Your task to perform on an android device: toggle location history Image 0: 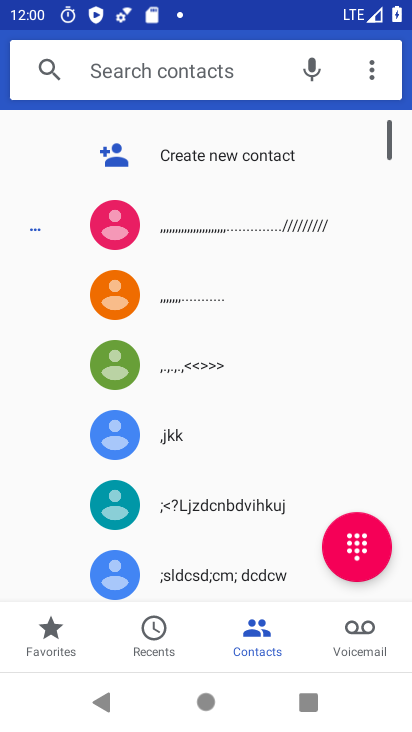
Step 0: press home button
Your task to perform on an android device: toggle location history Image 1: 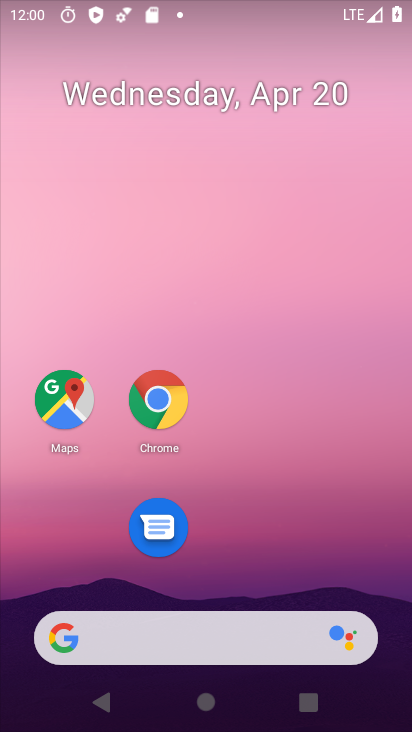
Step 1: drag from (291, 634) to (190, 217)
Your task to perform on an android device: toggle location history Image 2: 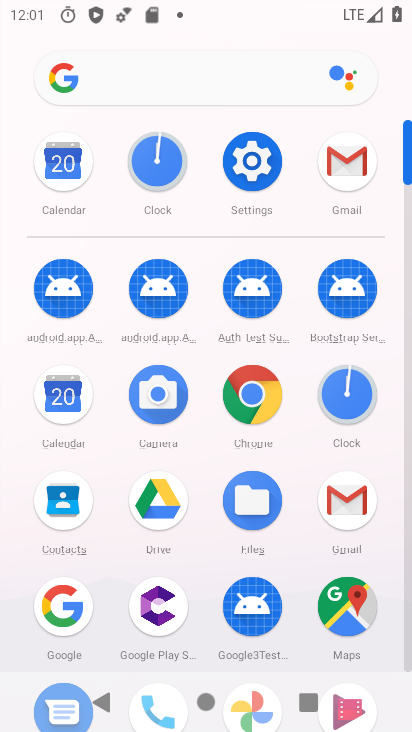
Step 2: click (243, 157)
Your task to perform on an android device: toggle location history Image 3: 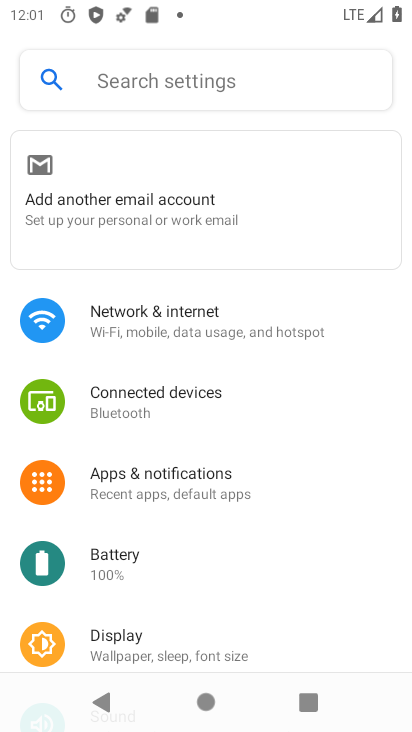
Step 3: drag from (224, 120) to (189, 94)
Your task to perform on an android device: toggle location history Image 4: 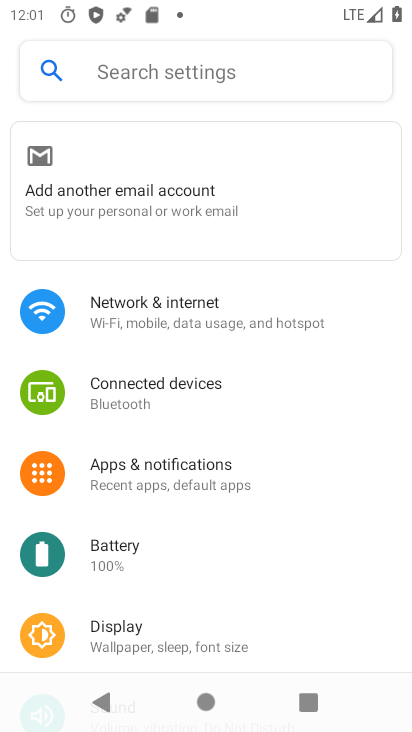
Step 4: click (168, 77)
Your task to perform on an android device: toggle location history Image 5: 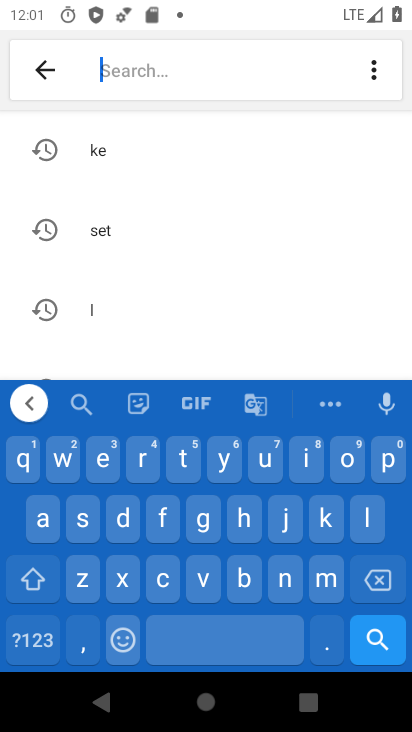
Step 5: click (98, 315)
Your task to perform on an android device: toggle location history Image 6: 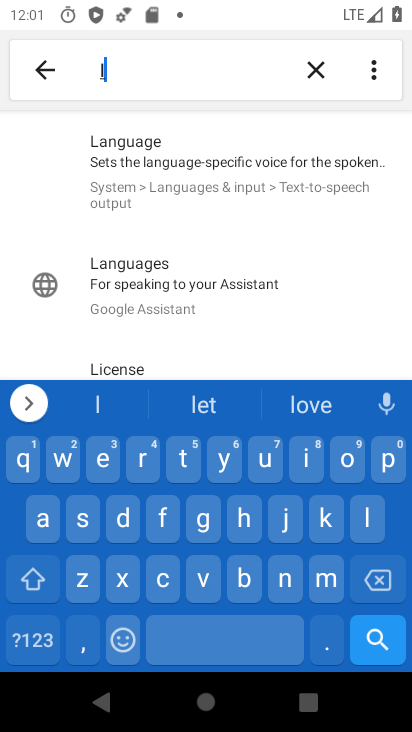
Step 6: drag from (161, 307) to (147, 83)
Your task to perform on an android device: toggle location history Image 7: 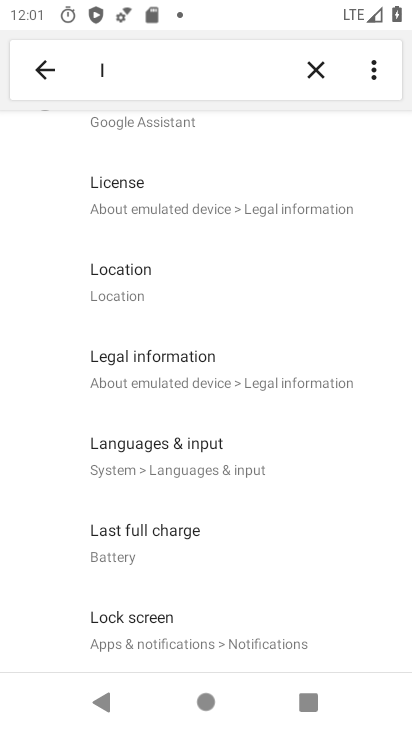
Step 7: click (143, 272)
Your task to perform on an android device: toggle location history Image 8: 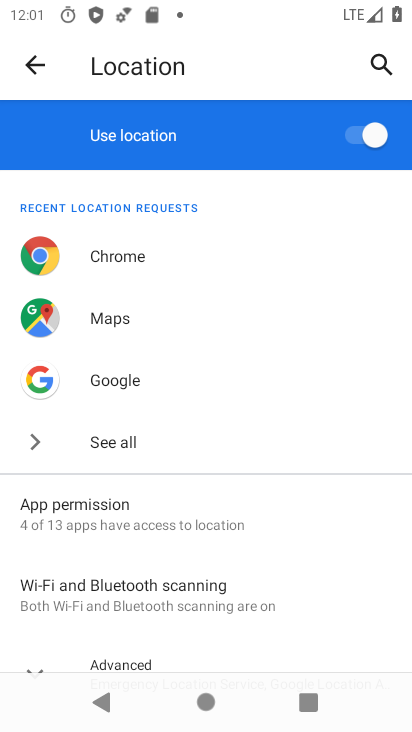
Step 8: drag from (173, 499) to (124, 351)
Your task to perform on an android device: toggle location history Image 9: 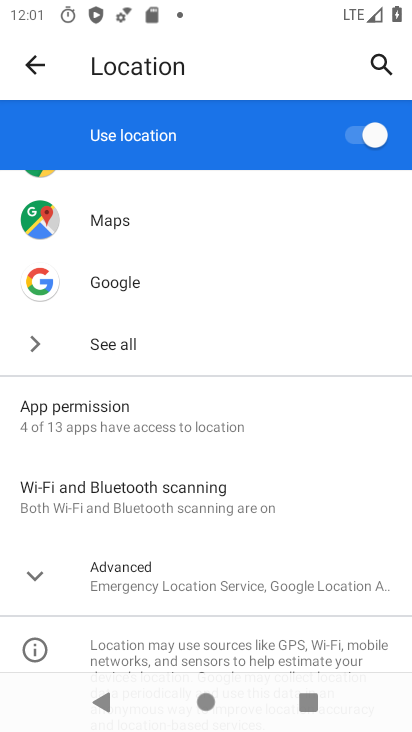
Step 9: click (24, 573)
Your task to perform on an android device: toggle location history Image 10: 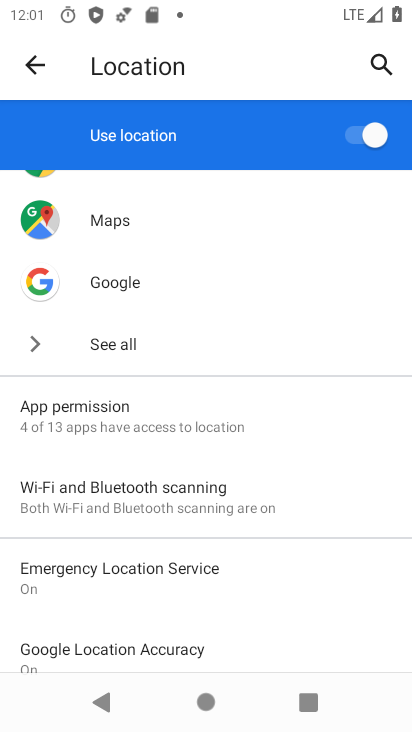
Step 10: drag from (149, 561) to (142, 364)
Your task to perform on an android device: toggle location history Image 11: 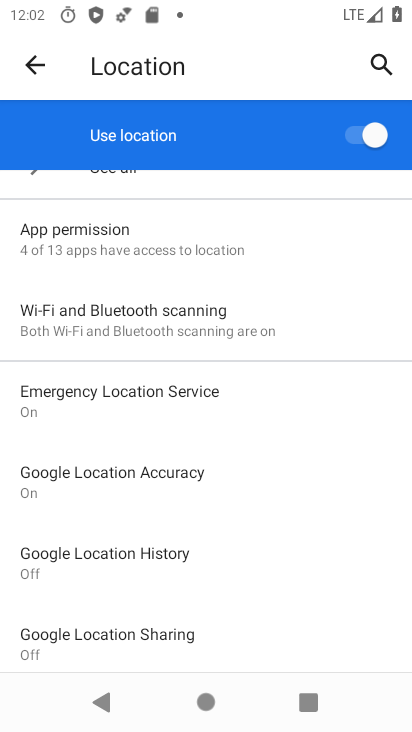
Step 11: click (138, 548)
Your task to perform on an android device: toggle location history Image 12: 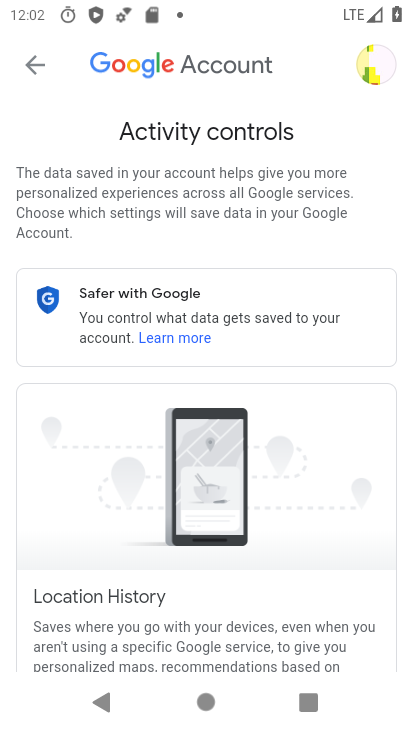
Step 12: task complete